Your task to perform on an android device: Open Chrome and go to settings Image 0: 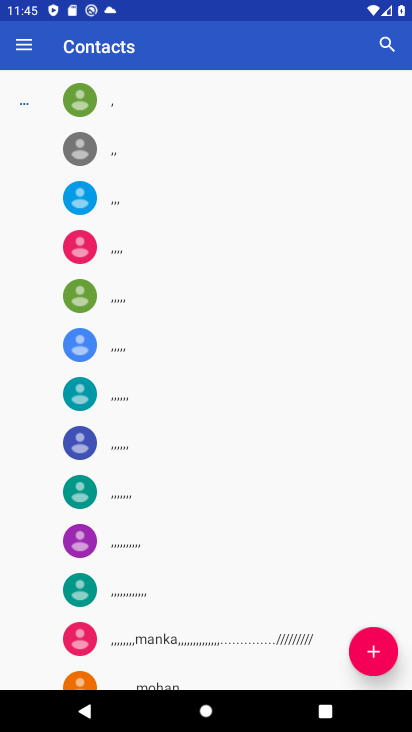
Step 0: press home button
Your task to perform on an android device: Open Chrome and go to settings Image 1: 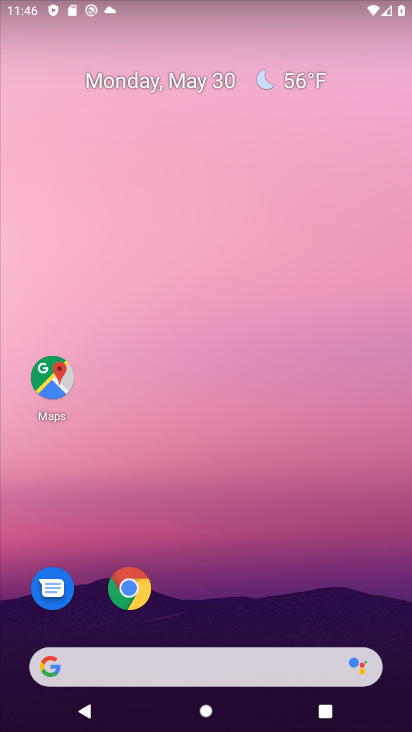
Step 1: drag from (202, 613) to (210, 84)
Your task to perform on an android device: Open Chrome and go to settings Image 2: 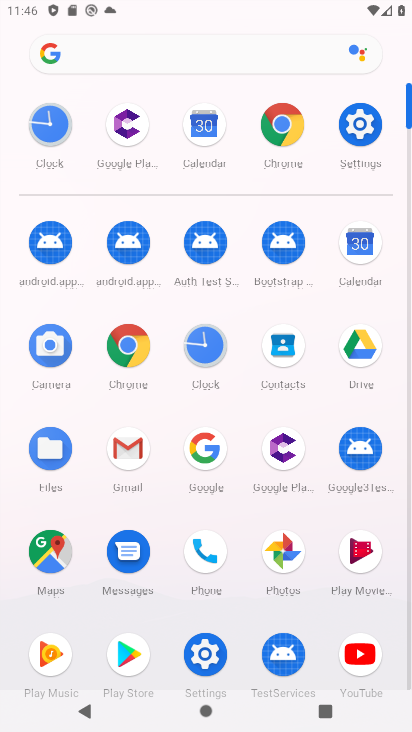
Step 2: click (120, 356)
Your task to perform on an android device: Open Chrome and go to settings Image 3: 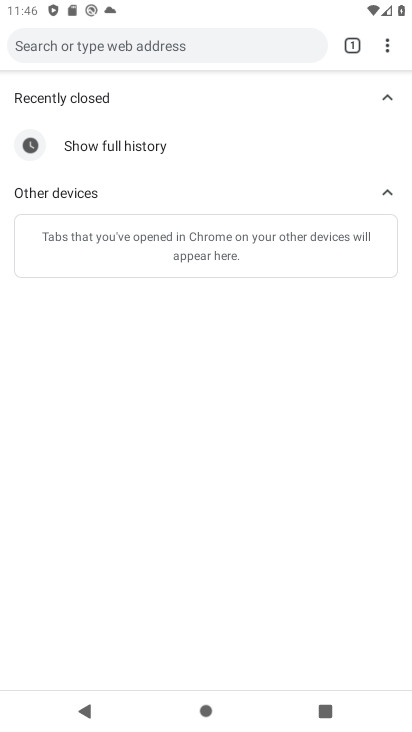
Step 3: click (378, 37)
Your task to perform on an android device: Open Chrome and go to settings Image 4: 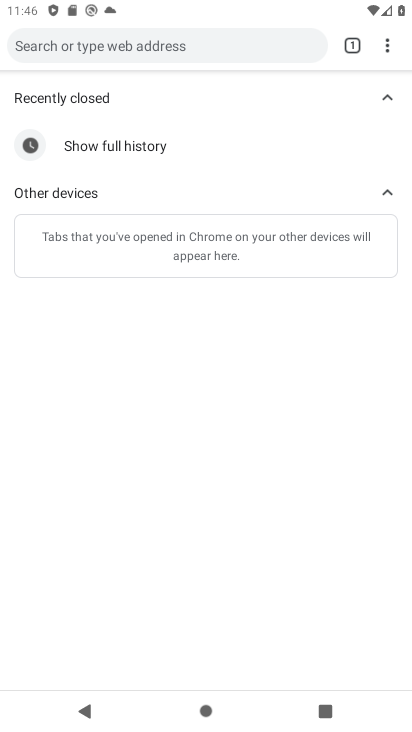
Step 4: click (385, 49)
Your task to perform on an android device: Open Chrome and go to settings Image 5: 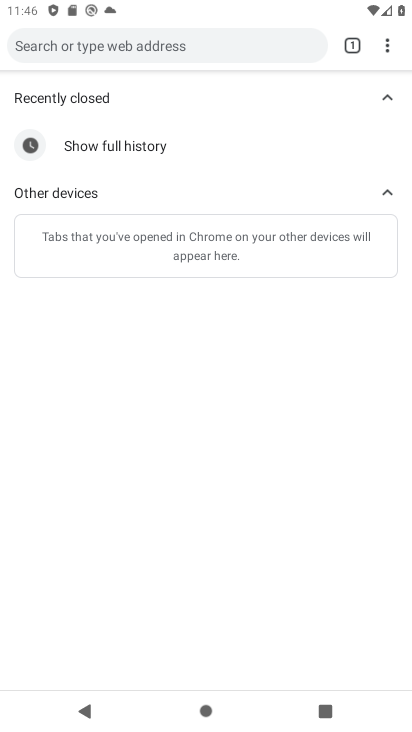
Step 5: click (387, 48)
Your task to perform on an android device: Open Chrome and go to settings Image 6: 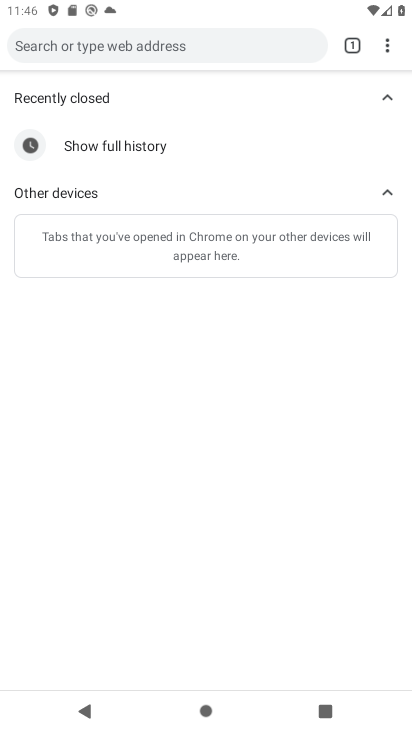
Step 6: click (389, 45)
Your task to perform on an android device: Open Chrome and go to settings Image 7: 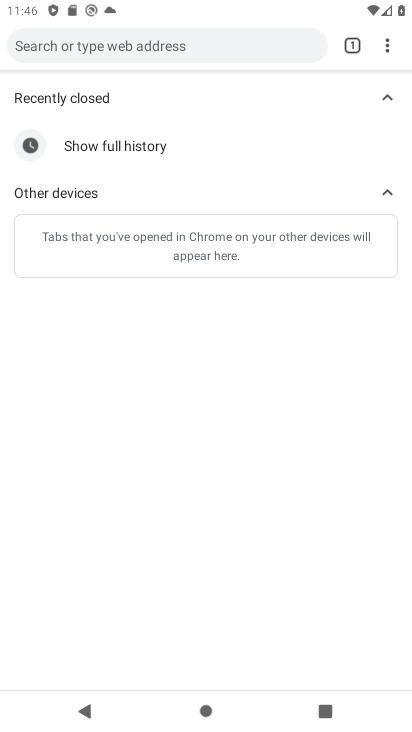
Step 7: click (389, 45)
Your task to perform on an android device: Open Chrome and go to settings Image 8: 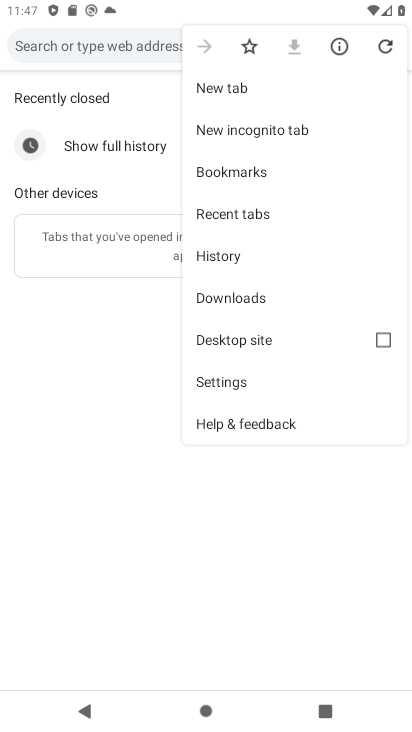
Step 8: click (222, 384)
Your task to perform on an android device: Open Chrome and go to settings Image 9: 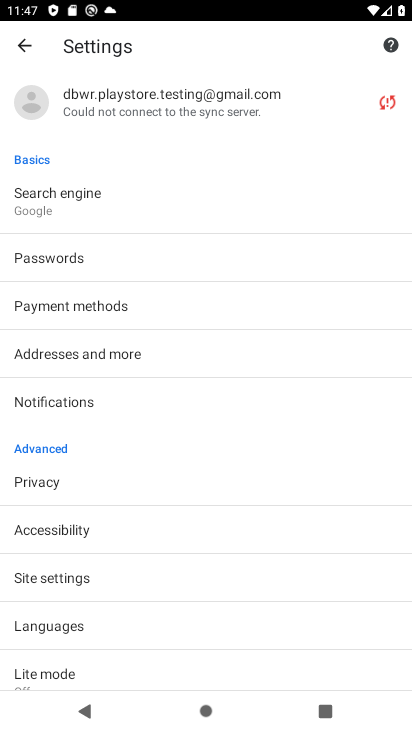
Step 9: task complete